Your task to perform on an android device: delete the emails in spam in the gmail app Image 0: 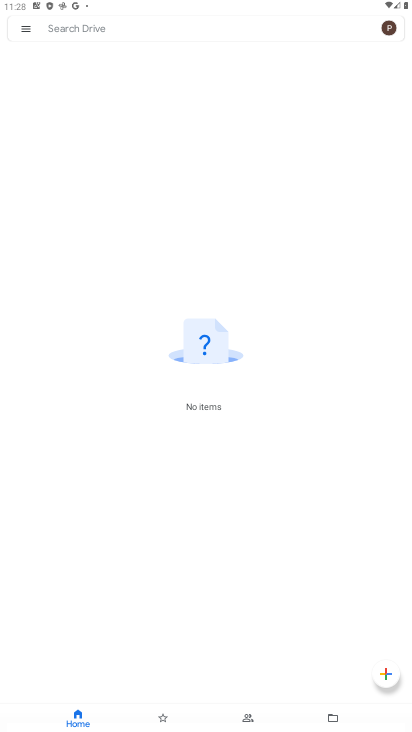
Step 0: task complete